Your task to perform on an android device: Go to notification settings Image 0: 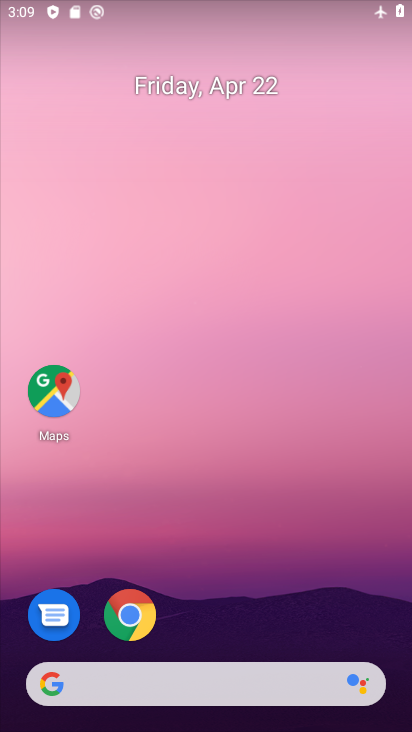
Step 0: drag from (225, 583) to (225, 302)
Your task to perform on an android device: Go to notification settings Image 1: 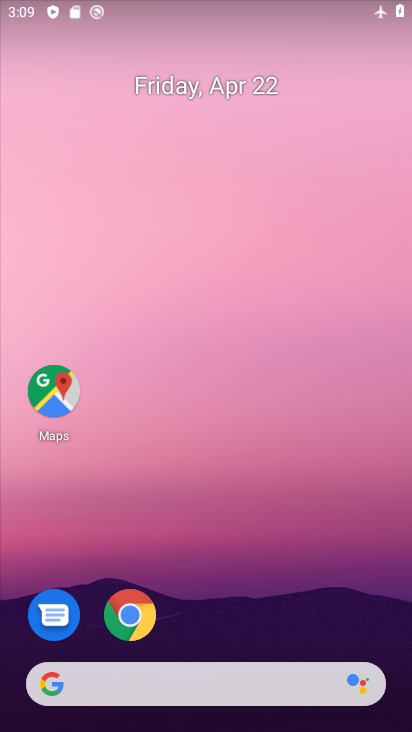
Step 1: drag from (232, 656) to (231, 269)
Your task to perform on an android device: Go to notification settings Image 2: 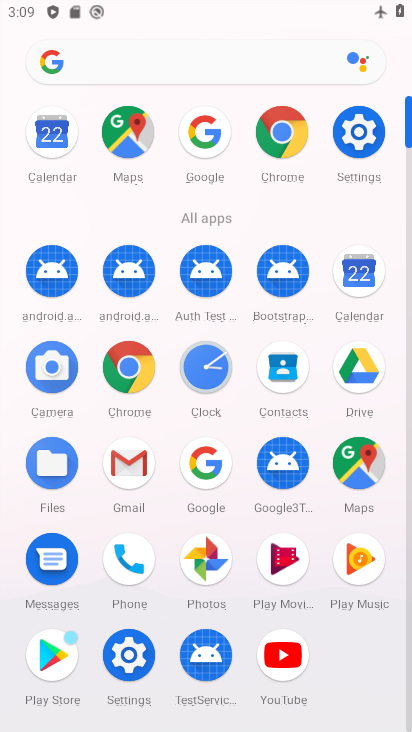
Step 2: click (359, 136)
Your task to perform on an android device: Go to notification settings Image 3: 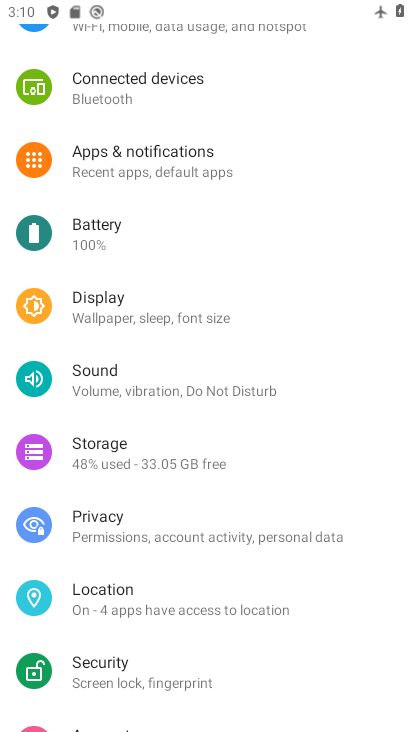
Step 3: click (135, 154)
Your task to perform on an android device: Go to notification settings Image 4: 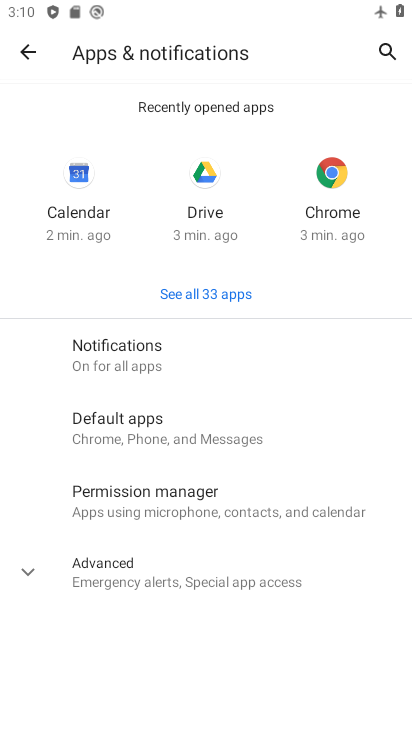
Step 4: click (145, 360)
Your task to perform on an android device: Go to notification settings Image 5: 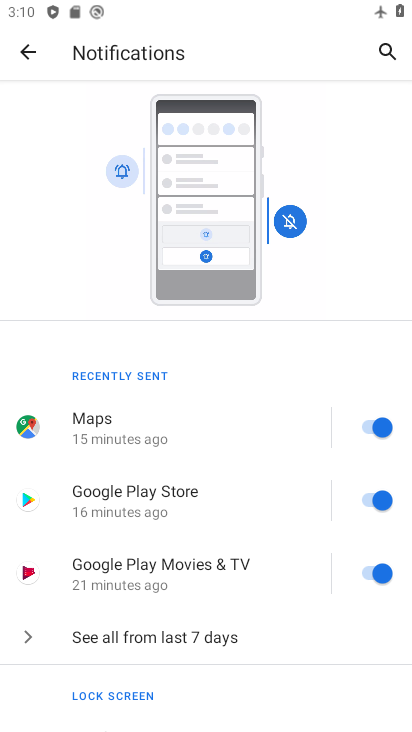
Step 5: drag from (189, 646) to (243, 196)
Your task to perform on an android device: Go to notification settings Image 6: 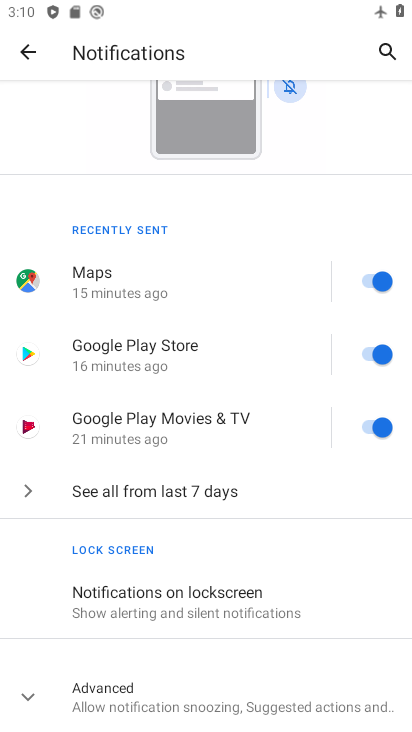
Step 6: click (98, 701)
Your task to perform on an android device: Go to notification settings Image 7: 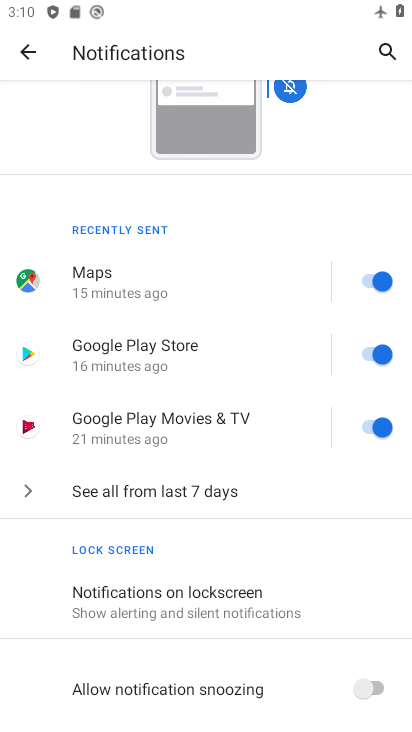
Step 7: task complete